Your task to perform on an android device: toggle data saver in the chrome app Image 0: 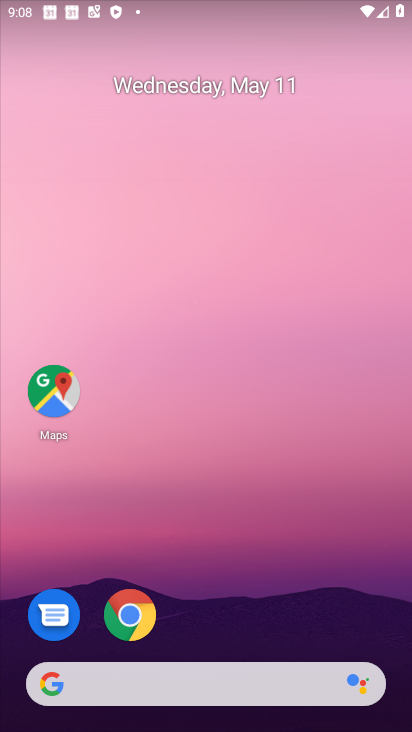
Step 0: press home button
Your task to perform on an android device: toggle data saver in the chrome app Image 1: 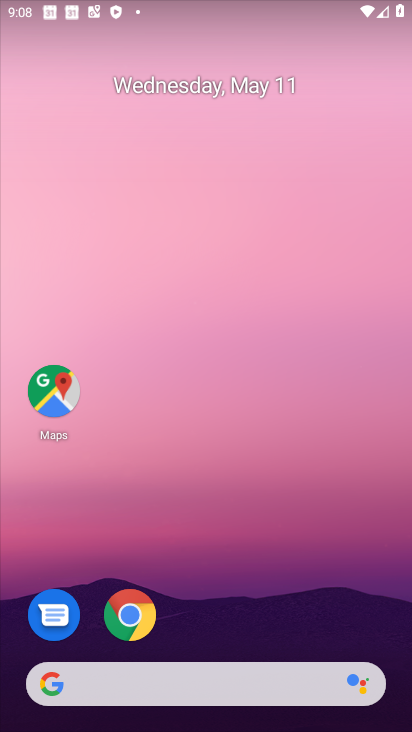
Step 1: click (133, 612)
Your task to perform on an android device: toggle data saver in the chrome app Image 2: 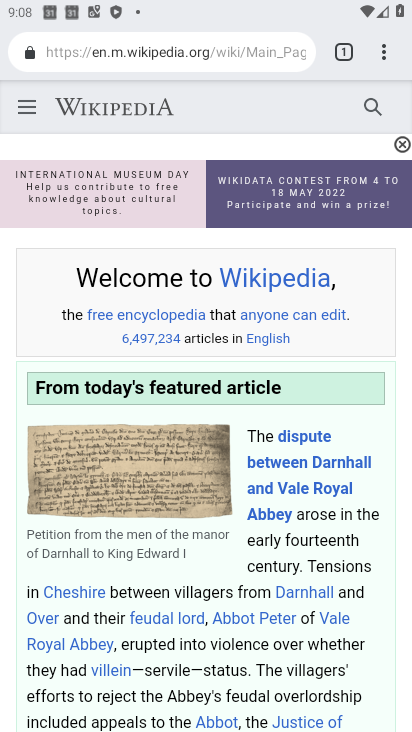
Step 2: click (381, 55)
Your task to perform on an android device: toggle data saver in the chrome app Image 3: 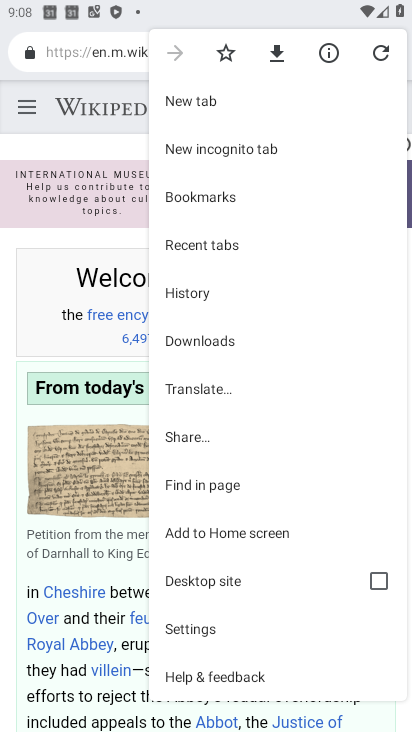
Step 3: click (209, 622)
Your task to perform on an android device: toggle data saver in the chrome app Image 4: 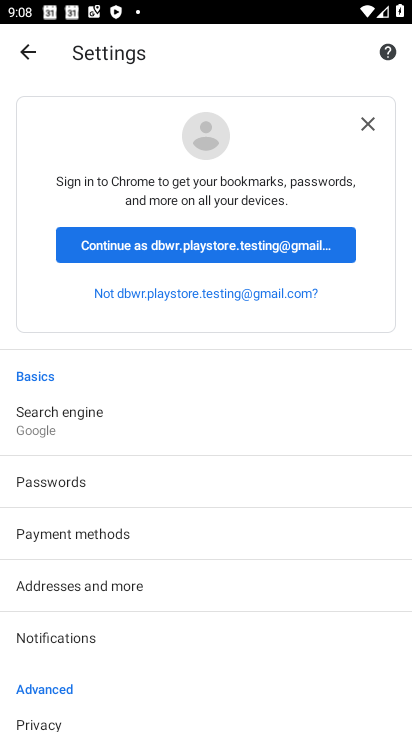
Step 4: drag from (115, 723) to (247, 262)
Your task to perform on an android device: toggle data saver in the chrome app Image 5: 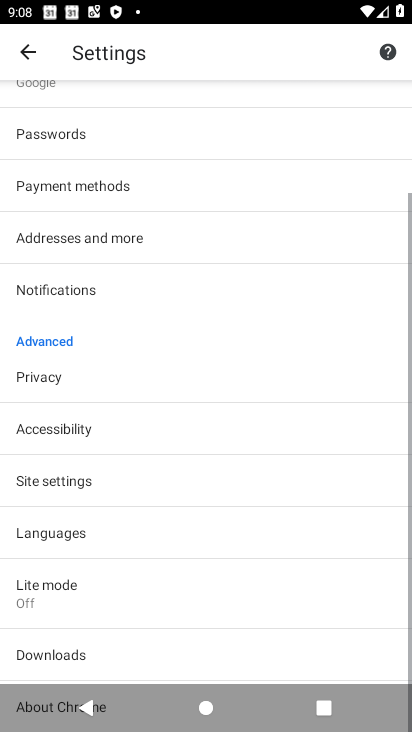
Step 5: click (68, 586)
Your task to perform on an android device: toggle data saver in the chrome app Image 6: 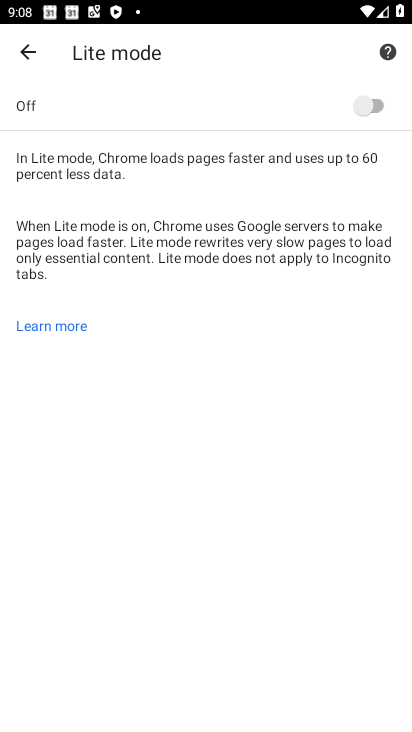
Step 6: click (357, 105)
Your task to perform on an android device: toggle data saver in the chrome app Image 7: 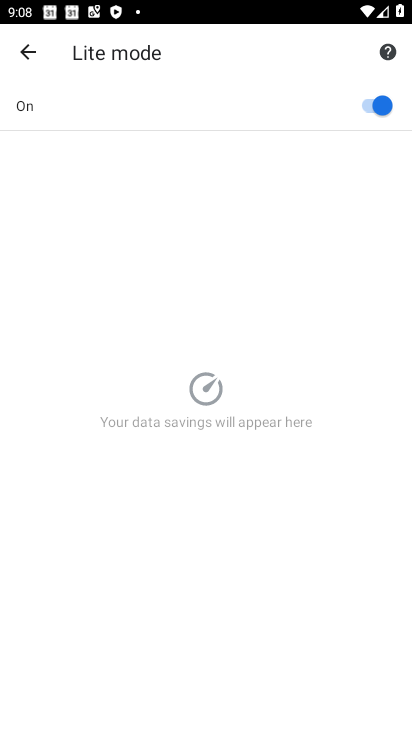
Step 7: task complete